Your task to perform on an android device: Open the Play Movies app and select the watchlist tab. Image 0: 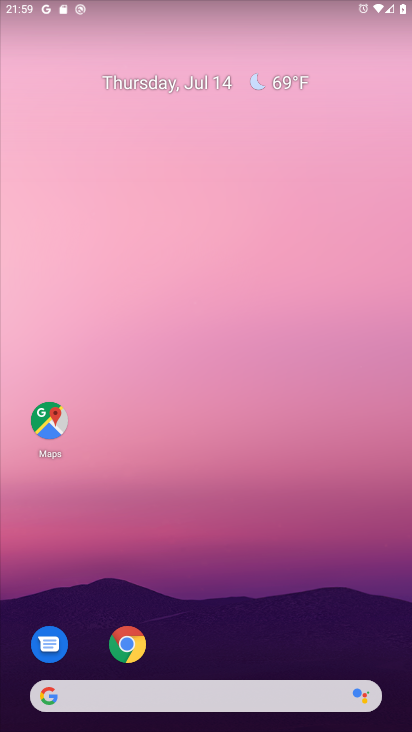
Step 0: drag from (216, 629) to (176, 73)
Your task to perform on an android device: Open the Play Movies app and select the watchlist tab. Image 1: 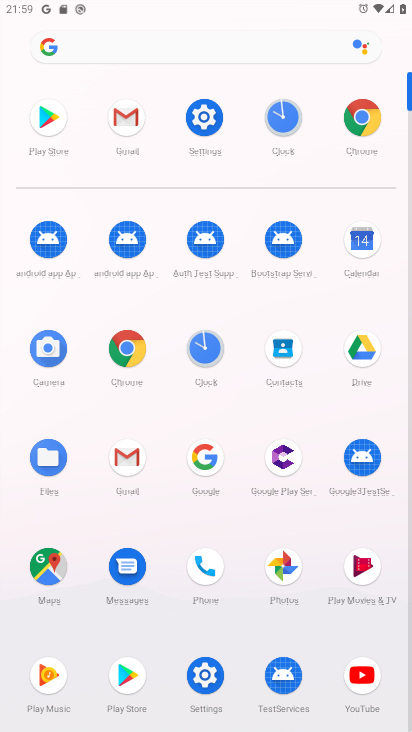
Step 1: click (369, 580)
Your task to perform on an android device: Open the Play Movies app and select the watchlist tab. Image 2: 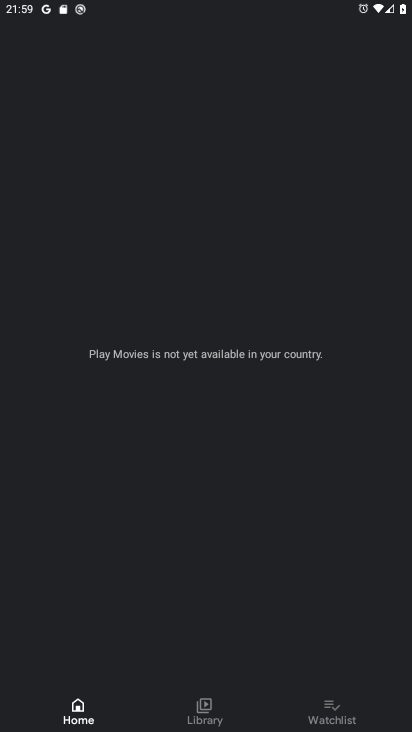
Step 2: click (333, 706)
Your task to perform on an android device: Open the Play Movies app and select the watchlist tab. Image 3: 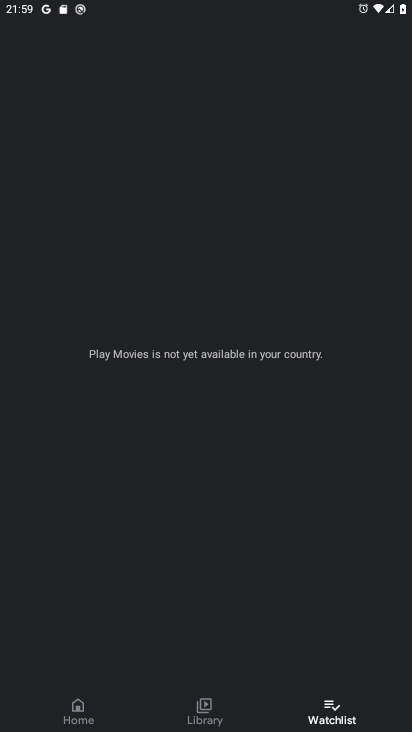
Step 3: task complete